Your task to perform on an android device: What's the weather today? Image 0: 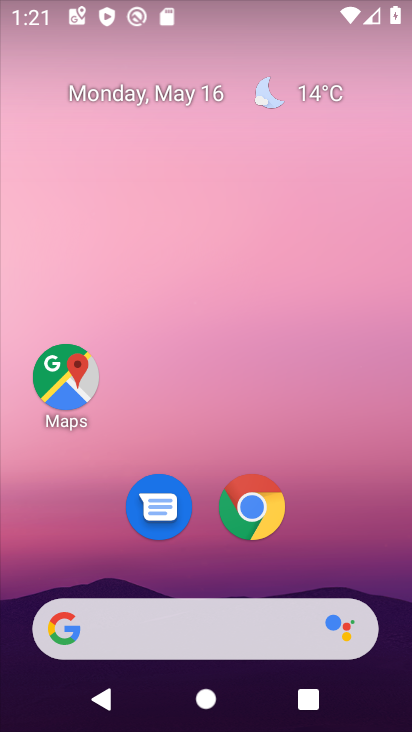
Step 0: drag from (198, 565) to (240, 225)
Your task to perform on an android device: What's the weather today? Image 1: 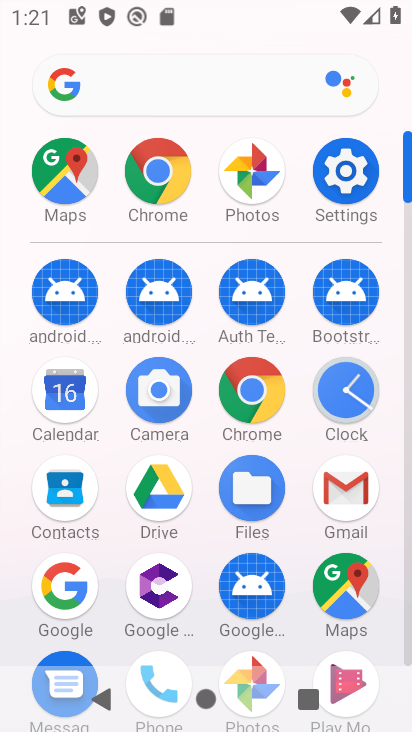
Step 1: click (55, 575)
Your task to perform on an android device: What's the weather today? Image 2: 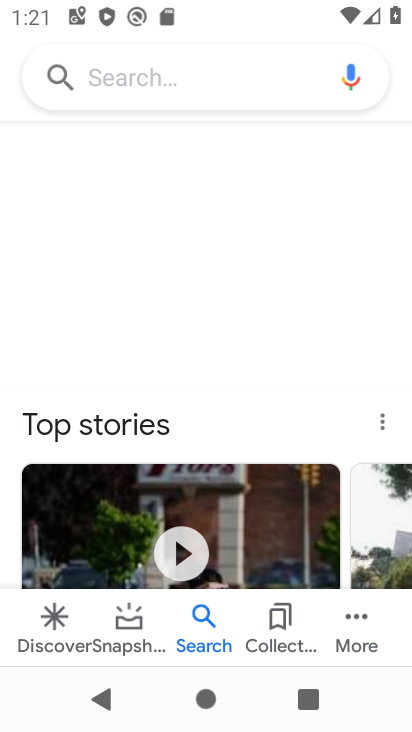
Step 2: drag from (166, 337) to (162, 263)
Your task to perform on an android device: What's the weather today? Image 3: 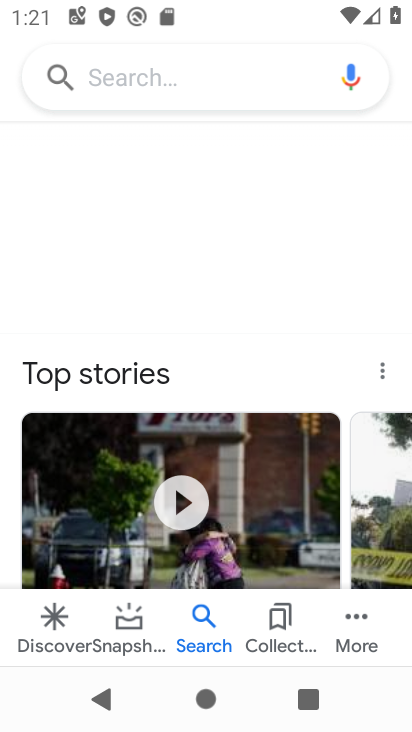
Step 3: click (162, 263)
Your task to perform on an android device: What's the weather today? Image 4: 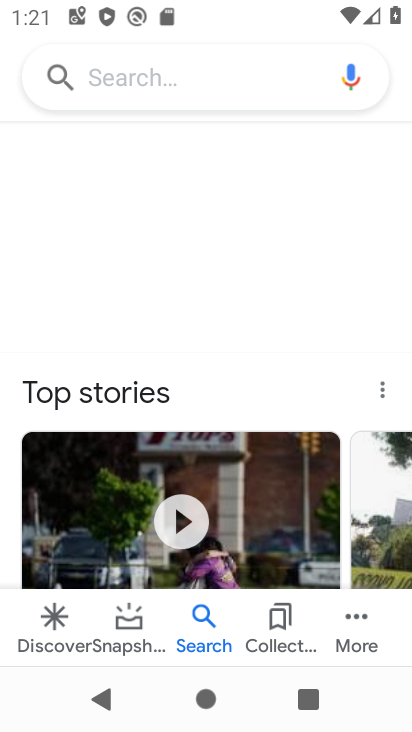
Step 4: drag from (230, 303) to (211, 558)
Your task to perform on an android device: What's the weather today? Image 5: 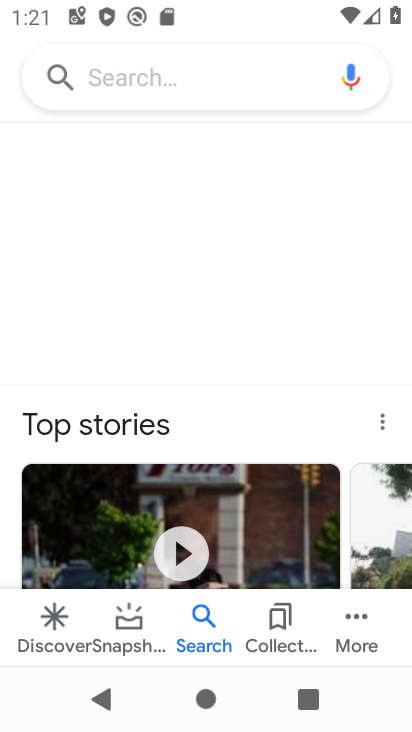
Step 5: drag from (205, 439) to (212, 196)
Your task to perform on an android device: What's the weather today? Image 6: 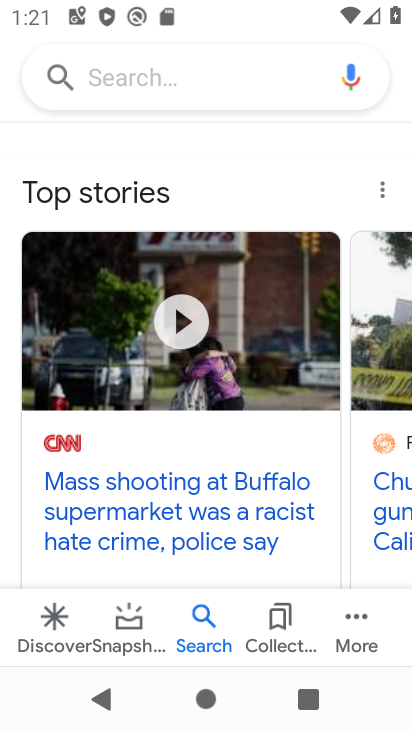
Step 6: drag from (233, 487) to (257, 259)
Your task to perform on an android device: What's the weather today? Image 7: 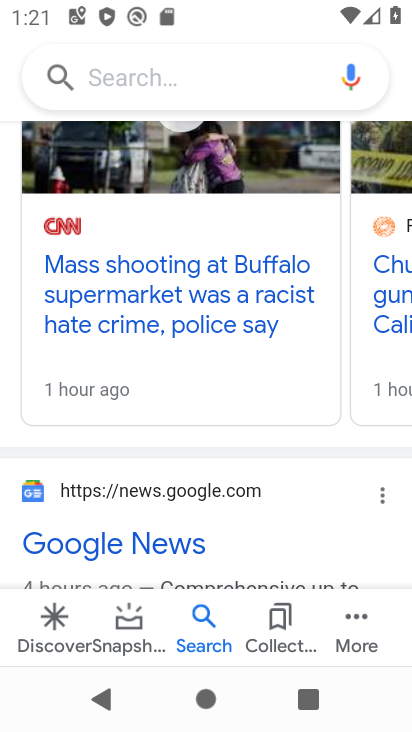
Step 7: click (37, 629)
Your task to perform on an android device: What's the weather today? Image 8: 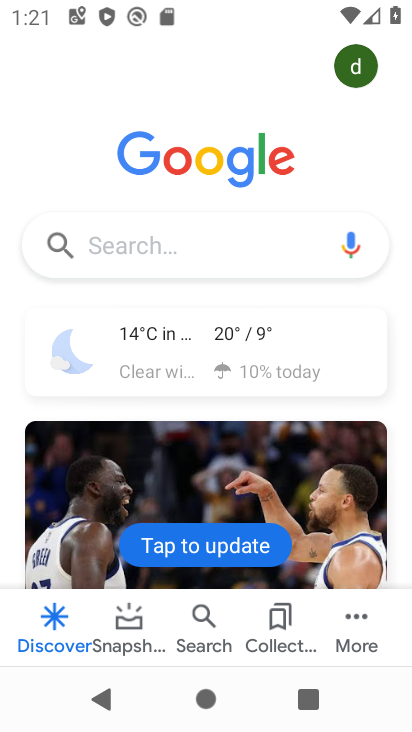
Step 8: click (188, 355)
Your task to perform on an android device: What's the weather today? Image 9: 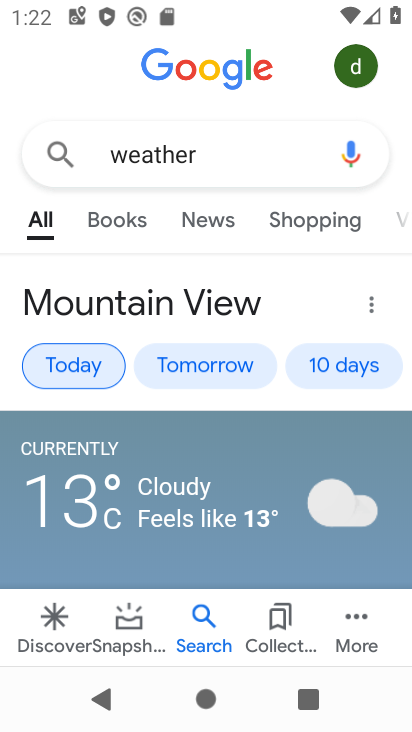
Step 9: task complete